Your task to perform on an android device: open app "Roku - Official Remote Control" (install if not already installed) Image 0: 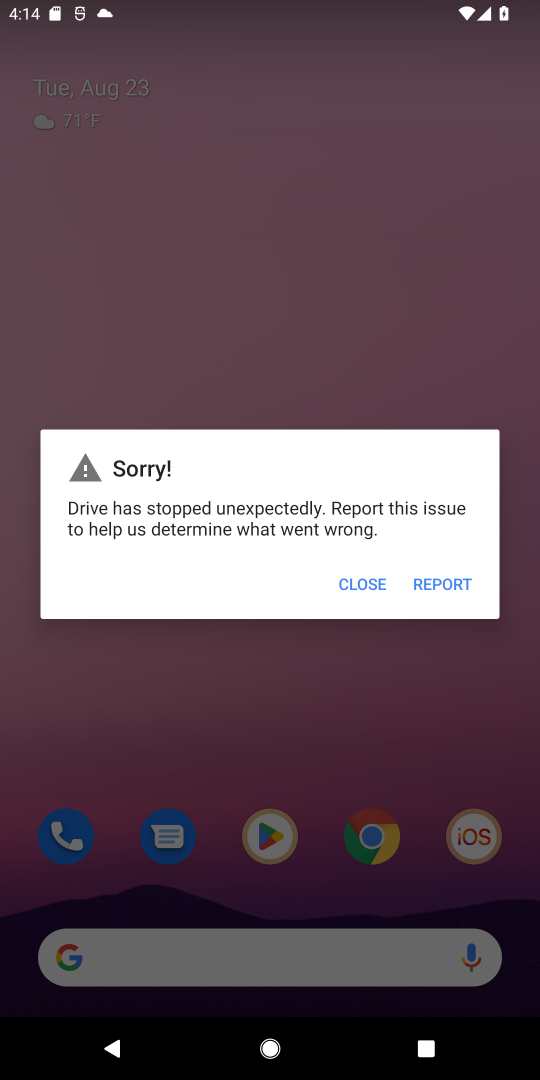
Step 0: press home button
Your task to perform on an android device: open app "Roku - Official Remote Control" (install if not already installed) Image 1: 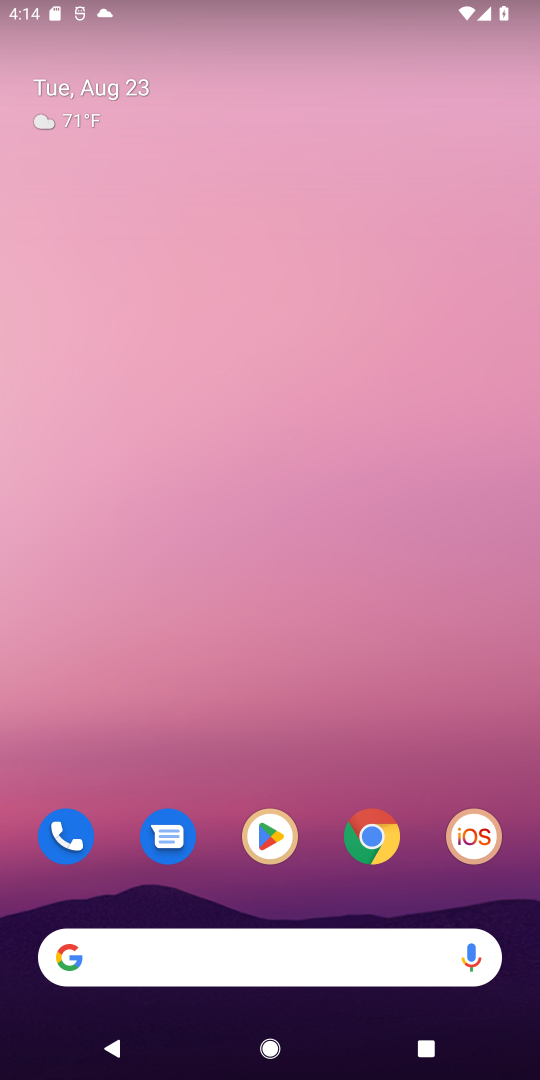
Step 1: click (269, 835)
Your task to perform on an android device: open app "Roku - Official Remote Control" (install if not already installed) Image 2: 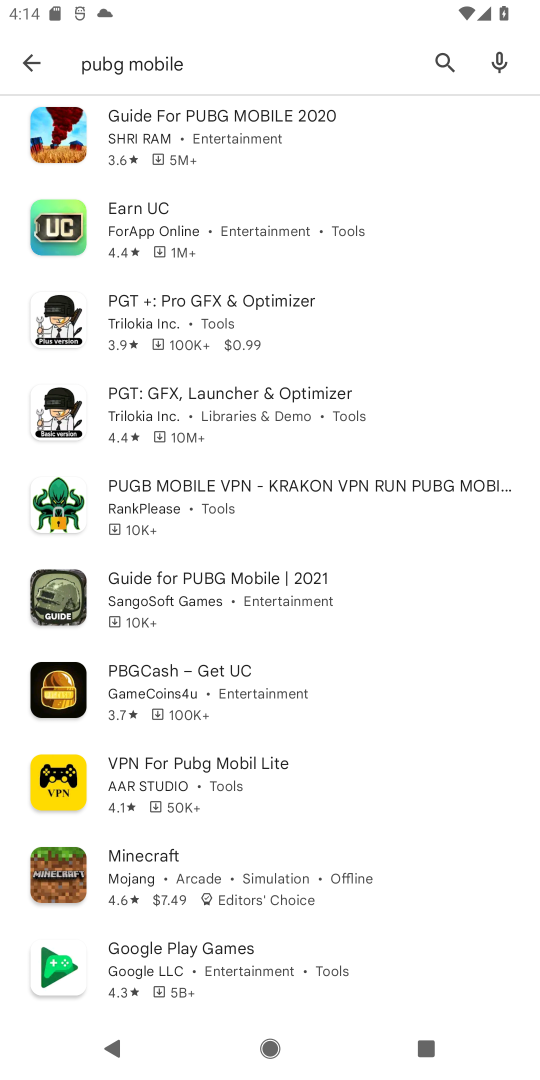
Step 2: click (443, 56)
Your task to perform on an android device: open app "Roku - Official Remote Control" (install if not already installed) Image 3: 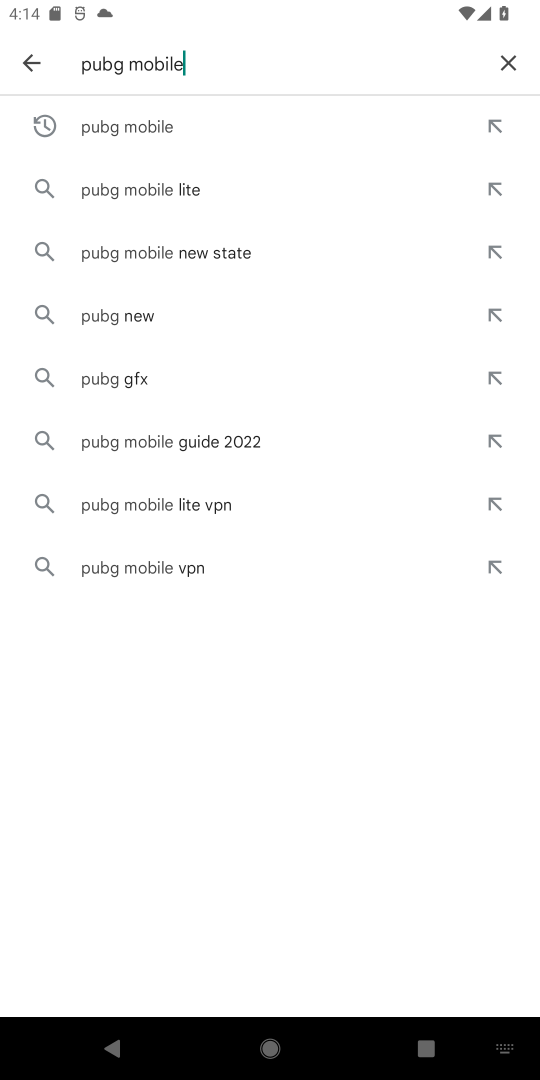
Step 3: click (511, 63)
Your task to perform on an android device: open app "Roku - Official Remote Control" (install if not already installed) Image 4: 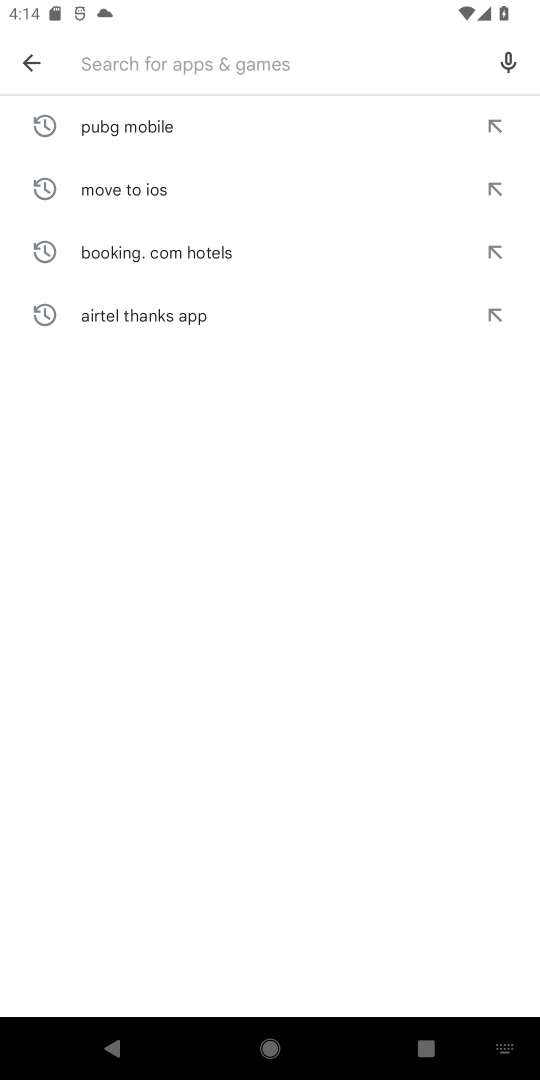
Step 4: type "Roku - Official Remote Contro"
Your task to perform on an android device: open app "Roku - Official Remote Control" (install if not already installed) Image 5: 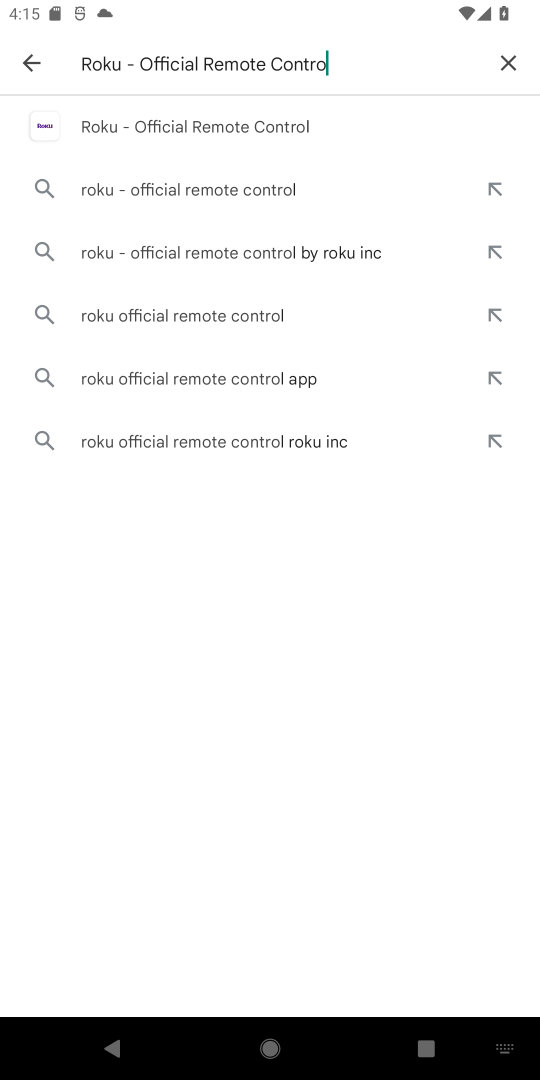
Step 5: click (184, 120)
Your task to perform on an android device: open app "Roku - Official Remote Control" (install if not already installed) Image 6: 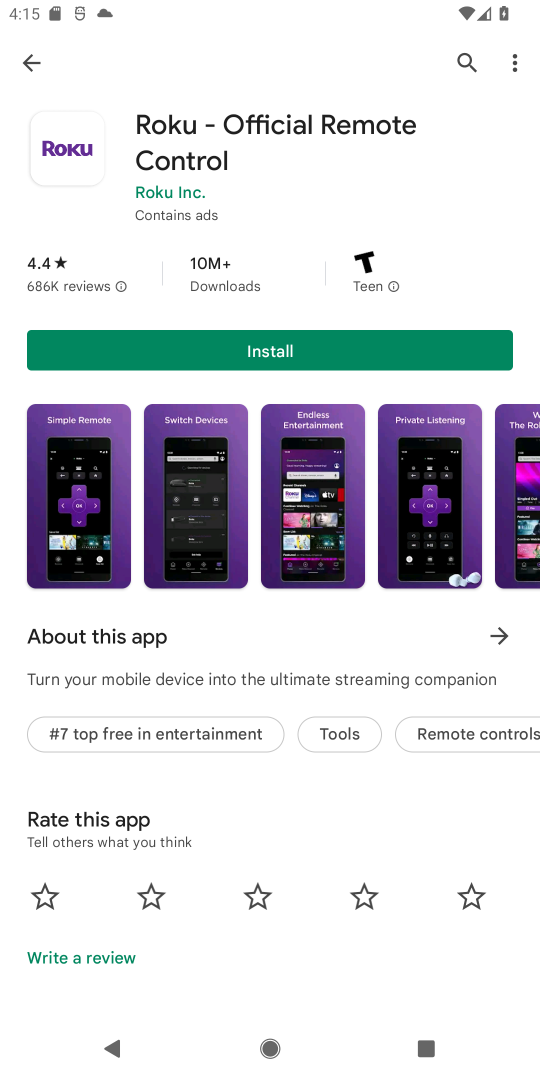
Step 6: click (273, 348)
Your task to perform on an android device: open app "Roku - Official Remote Control" (install if not already installed) Image 7: 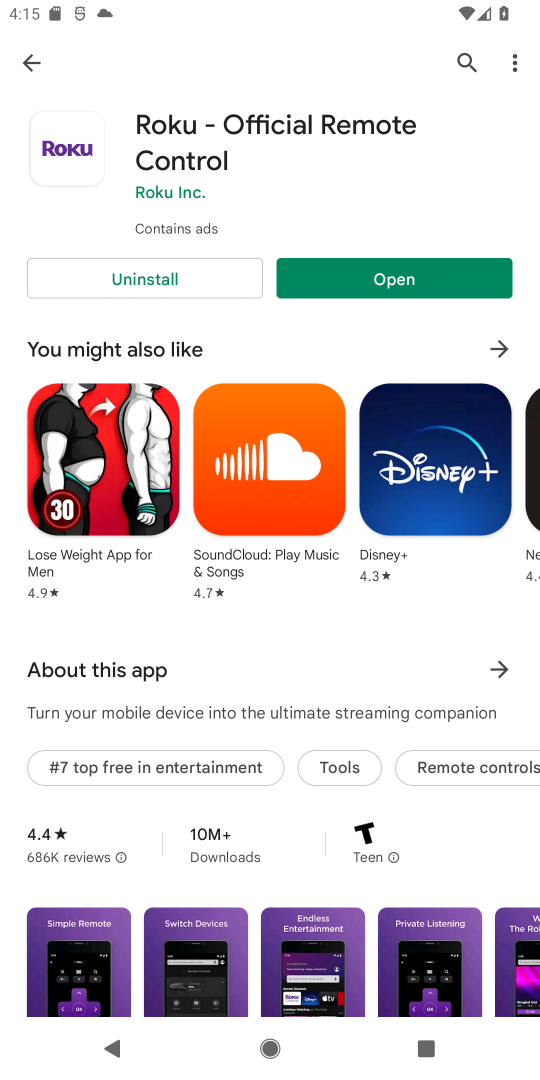
Step 7: click (399, 274)
Your task to perform on an android device: open app "Roku - Official Remote Control" (install if not already installed) Image 8: 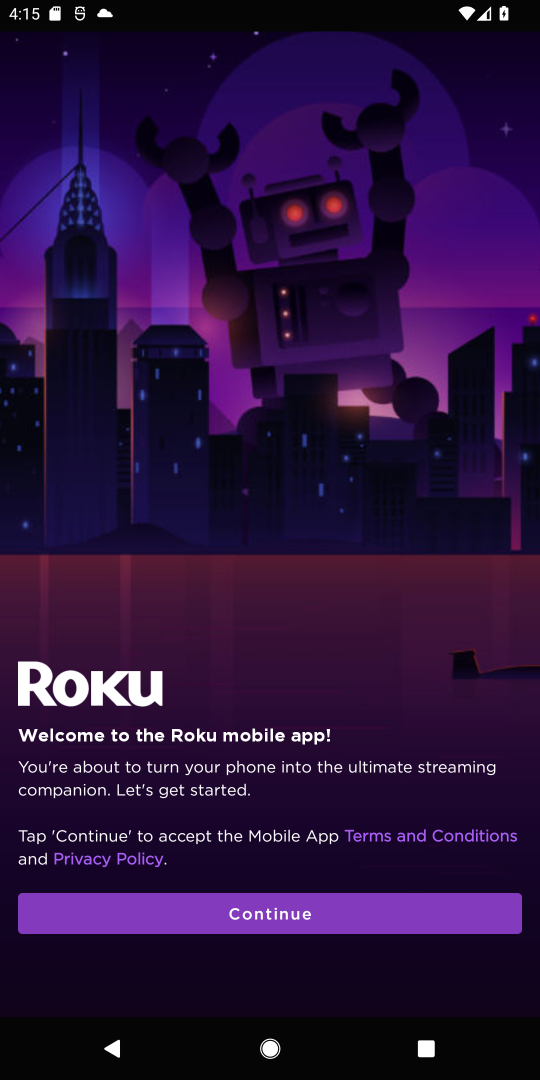
Step 8: click (269, 905)
Your task to perform on an android device: open app "Roku - Official Remote Control" (install if not already installed) Image 9: 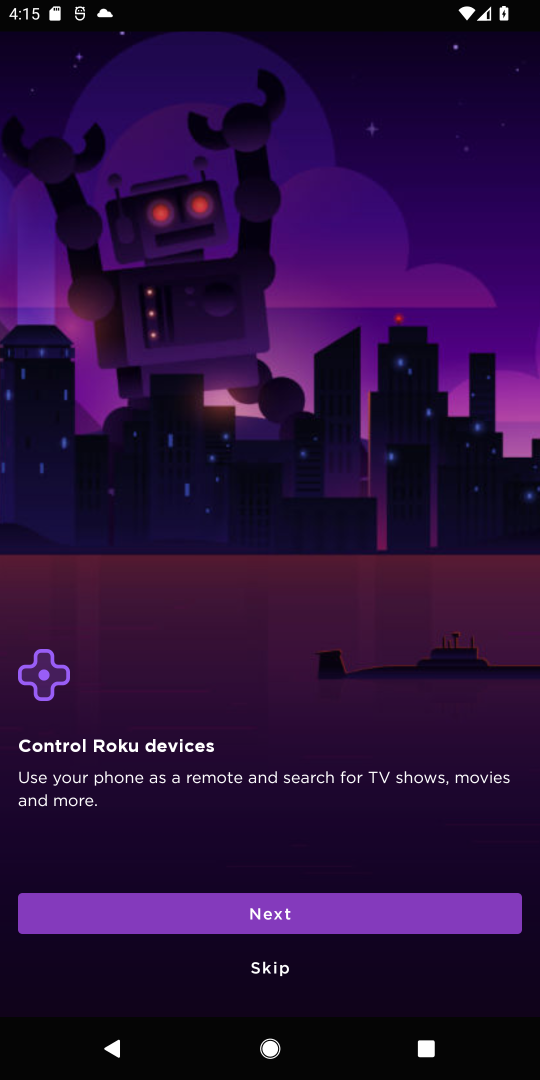
Step 9: task complete